Your task to perform on an android device: open chrome and create a bookmark for the current page Image 0: 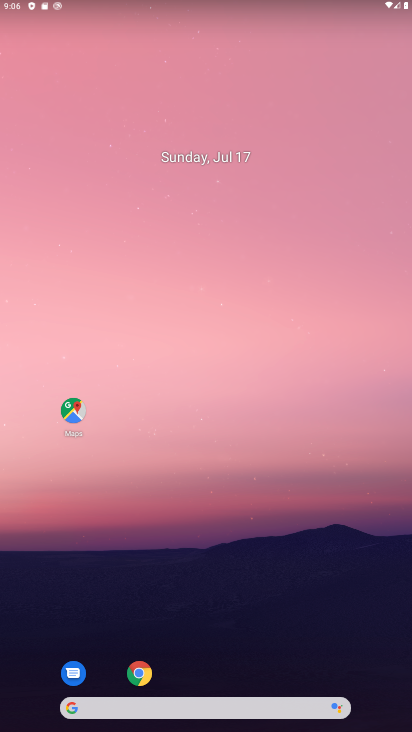
Step 0: click (141, 671)
Your task to perform on an android device: open chrome and create a bookmark for the current page Image 1: 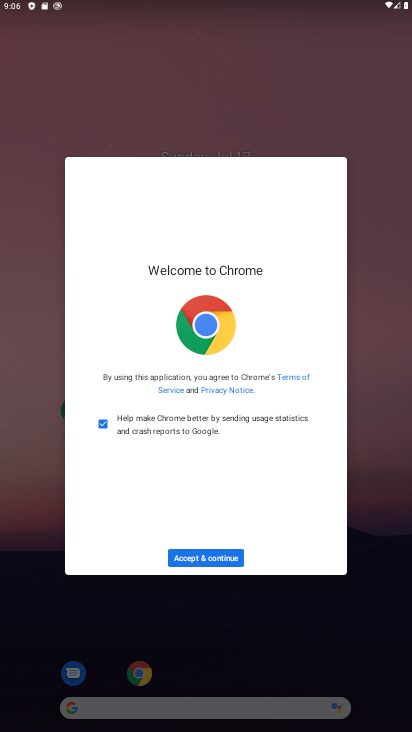
Step 1: click (211, 562)
Your task to perform on an android device: open chrome and create a bookmark for the current page Image 2: 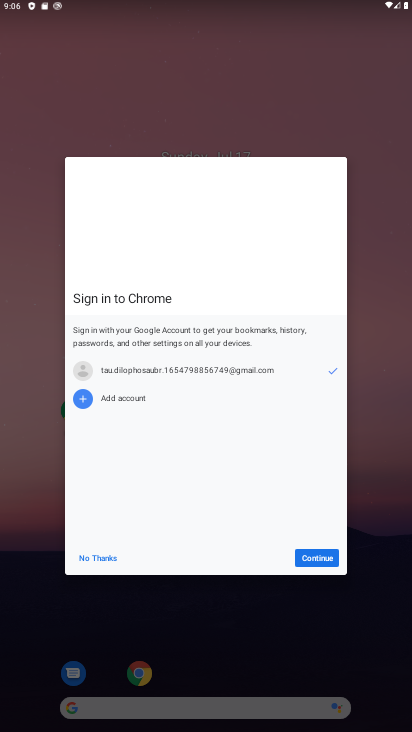
Step 2: click (301, 560)
Your task to perform on an android device: open chrome and create a bookmark for the current page Image 3: 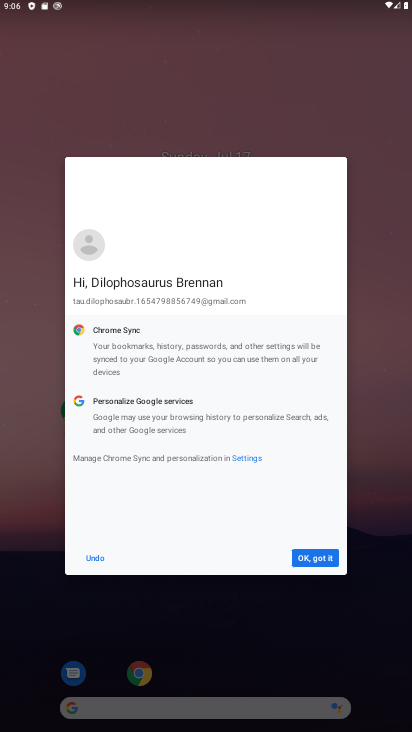
Step 3: click (301, 560)
Your task to perform on an android device: open chrome and create a bookmark for the current page Image 4: 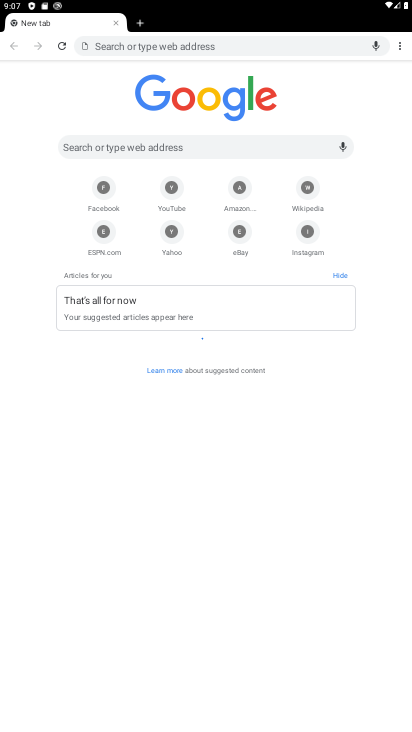
Step 4: click (400, 48)
Your task to perform on an android device: open chrome and create a bookmark for the current page Image 5: 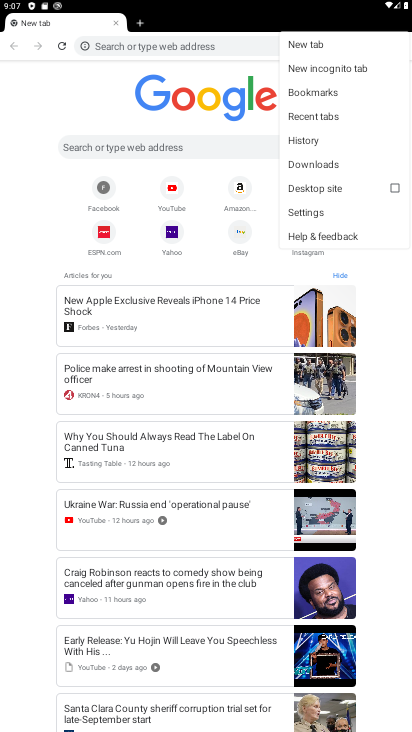
Step 5: click (180, 78)
Your task to perform on an android device: open chrome and create a bookmark for the current page Image 6: 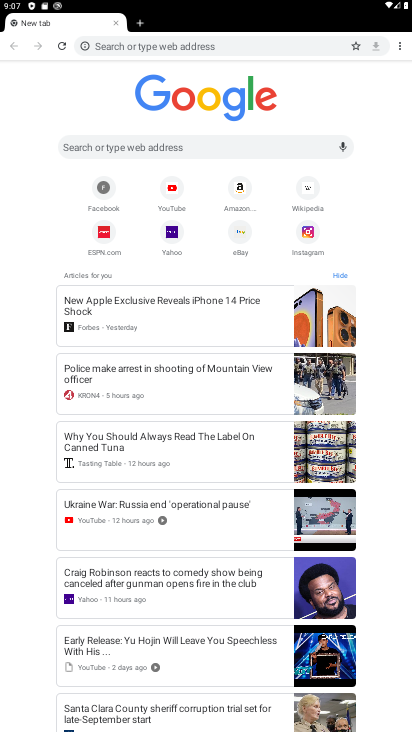
Step 6: click (352, 51)
Your task to perform on an android device: open chrome and create a bookmark for the current page Image 7: 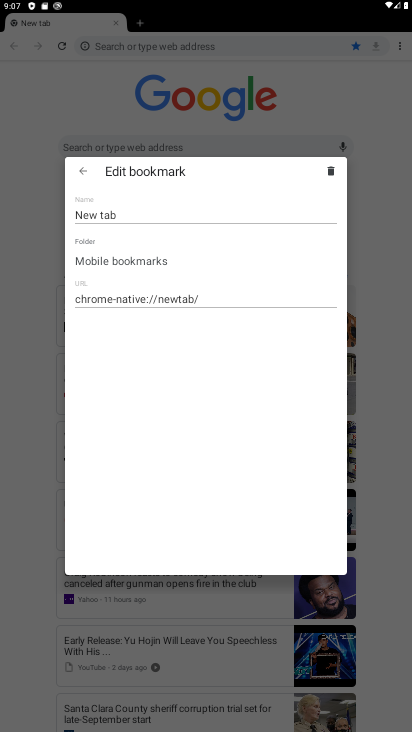
Step 7: click (370, 193)
Your task to perform on an android device: open chrome and create a bookmark for the current page Image 8: 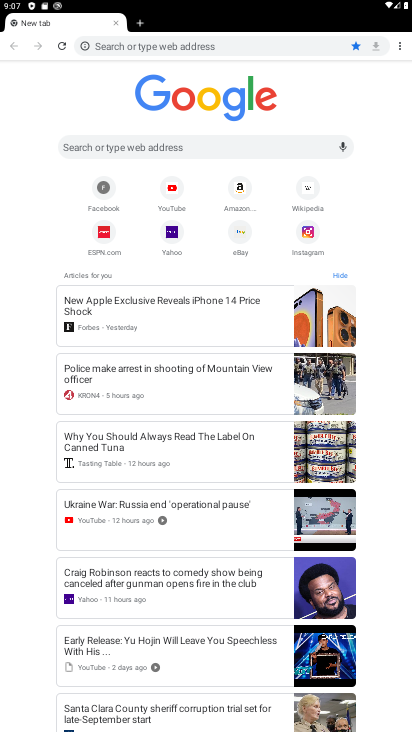
Step 8: task complete